Your task to perform on an android device: turn vacation reply on in the gmail app Image 0: 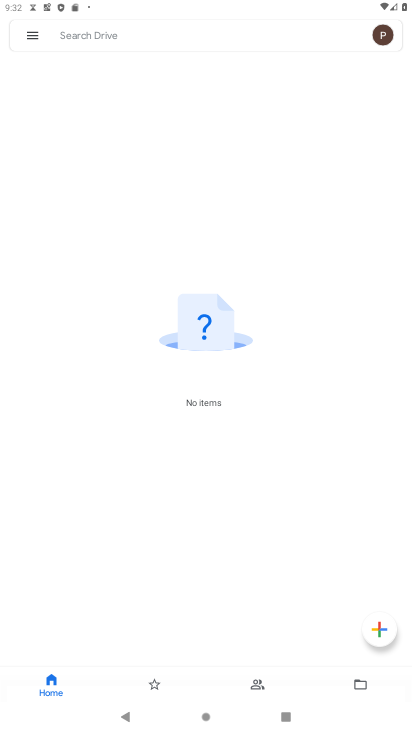
Step 0: press home button
Your task to perform on an android device: turn vacation reply on in the gmail app Image 1: 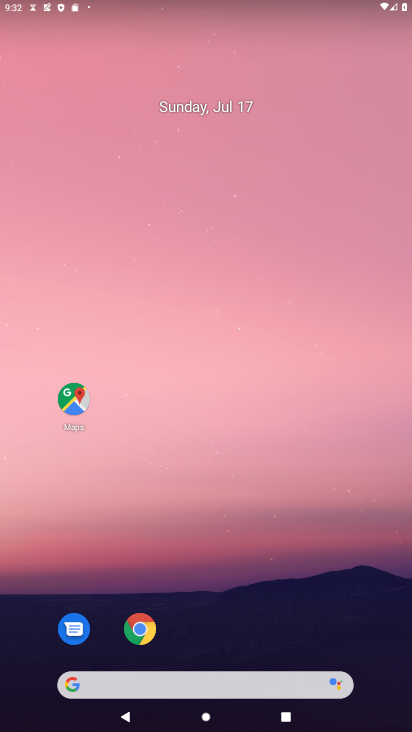
Step 1: drag from (232, 722) to (236, 121)
Your task to perform on an android device: turn vacation reply on in the gmail app Image 2: 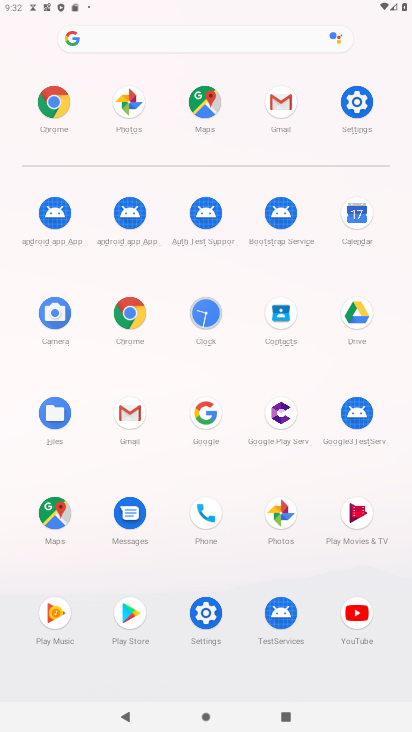
Step 2: click (132, 415)
Your task to perform on an android device: turn vacation reply on in the gmail app Image 3: 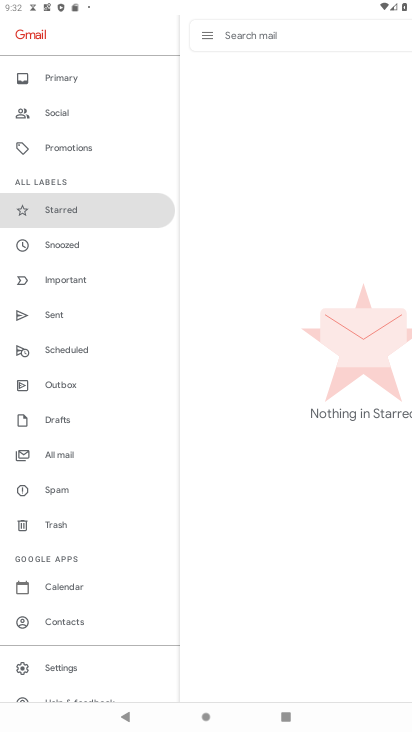
Step 3: click (56, 670)
Your task to perform on an android device: turn vacation reply on in the gmail app Image 4: 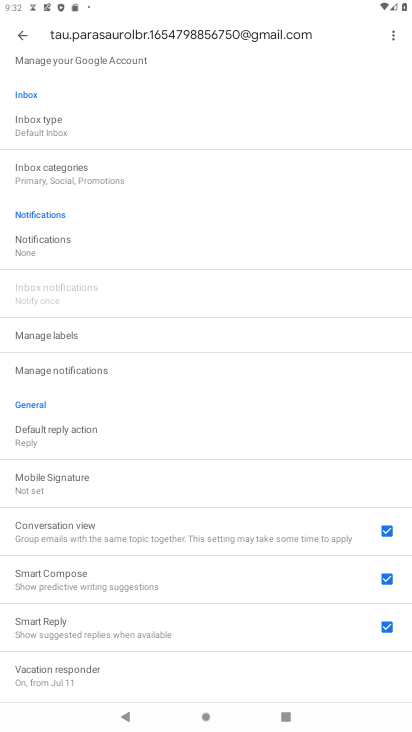
Step 4: click (85, 673)
Your task to perform on an android device: turn vacation reply on in the gmail app Image 5: 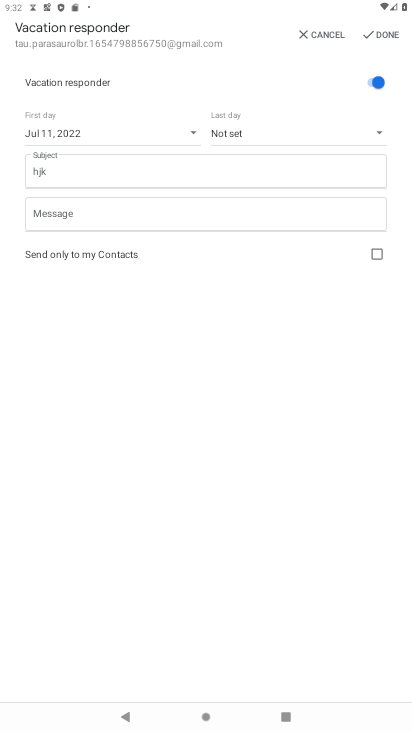
Step 5: task complete